Your task to perform on an android device: turn on sleep mode Image 0: 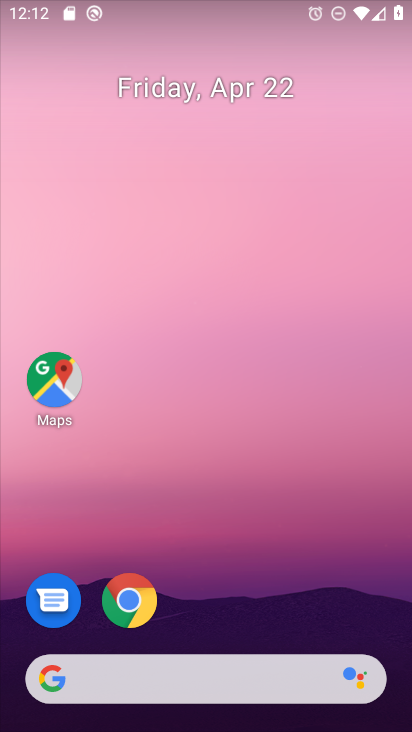
Step 0: drag from (254, 592) to (155, 60)
Your task to perform on an android device: turn on sleep mode Image 1: 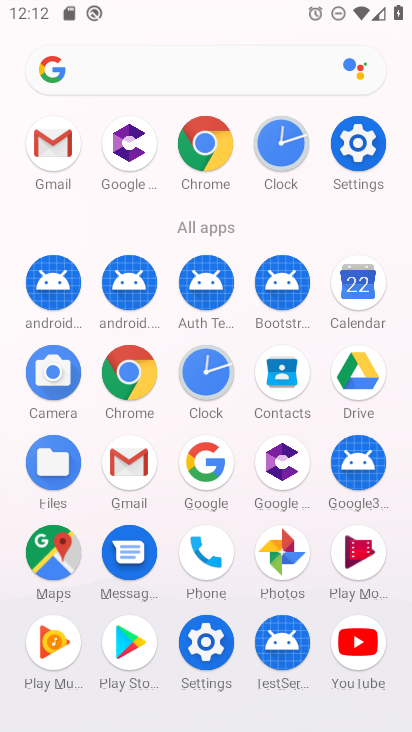
Step 1: click (360, 140)
Your task to perform on an android device: turn on sleep mode Image 2: 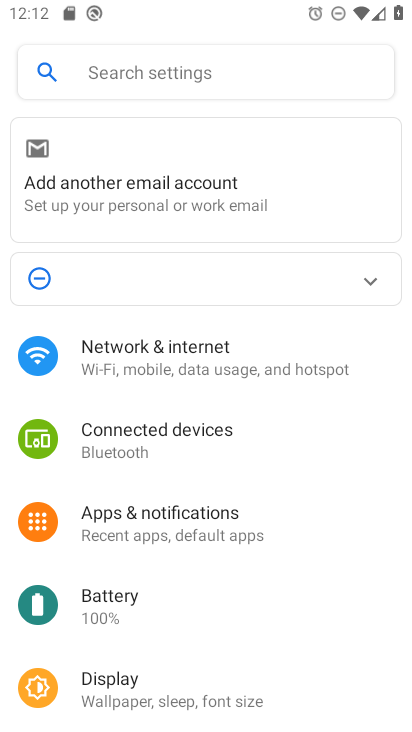
Step 2: drag from (173, 578) to (223, 455)
Your task to perform on an android device: turn on sleep mode Image 3: 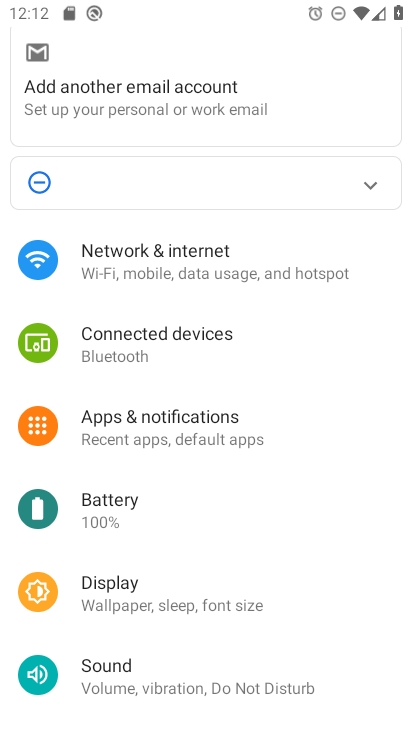
Step 3: click (162, 610)
Your task to perform on an android device: turn on sleep mode Image 4: 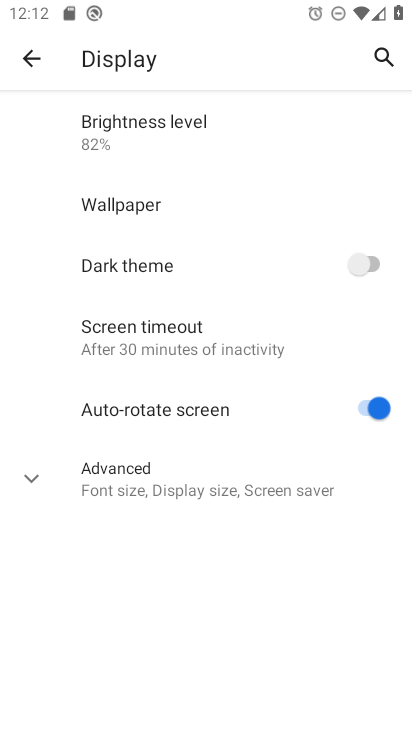
Step 4: click (132, 487)
Your task to perform on an android device: turn on sleep mode Image 5: 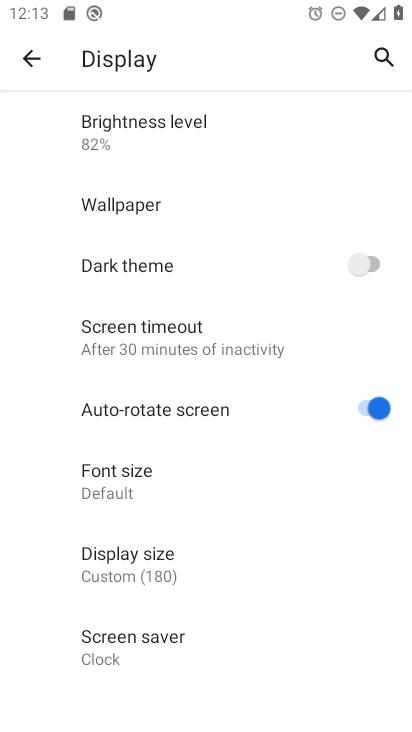
Step 5: task complete